Your task to perform on an android device: Go to notification settings Image 0: 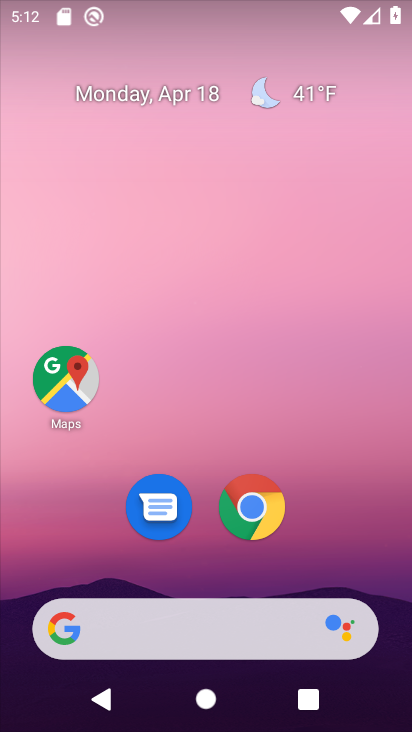
Step 0: drag from (326, 591) to (288, 69)
Your task to perform on an android device: Go to notification settings Image 1: 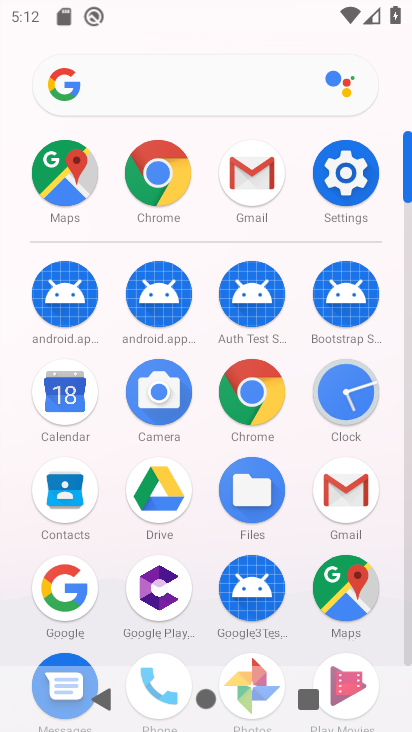
Step 1: click (338, 170)
Your task to perform on an android device: Go to notification settings Image 2: 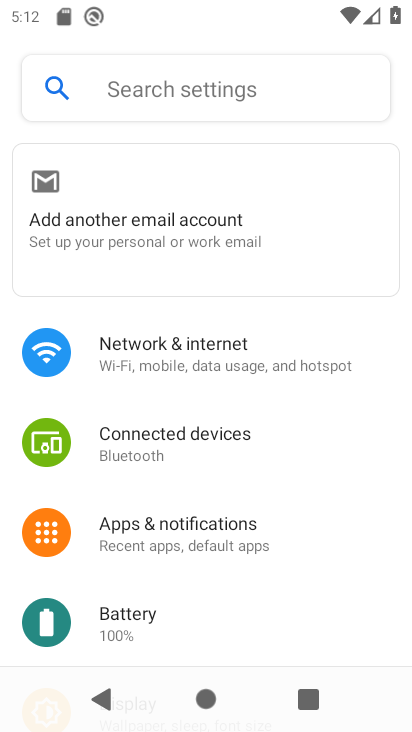
Step 2: click (185, 525)
Your task to perform on an android device: Go to notification settings Image 3: 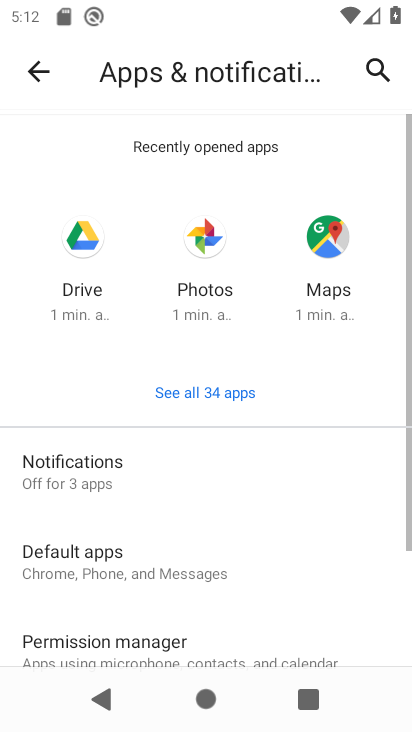
Step 3: drag from (300, 647) to (309, 146)
Your task to perform on an android device: Go to notification settings Image 4: 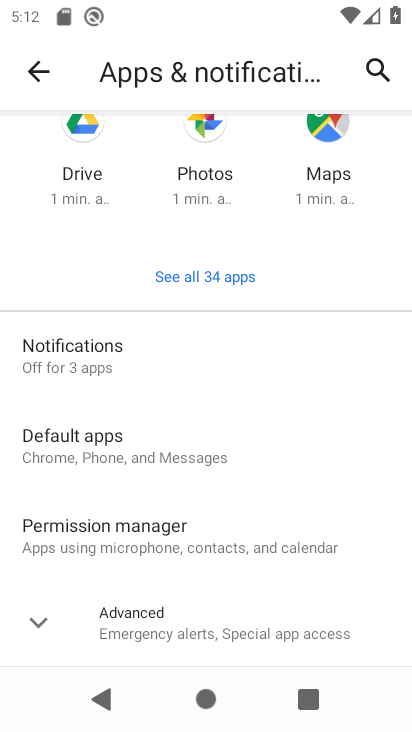
Step 4: click (125, 371)
Your task to perform on an android device: Go to notification settings Image 5: 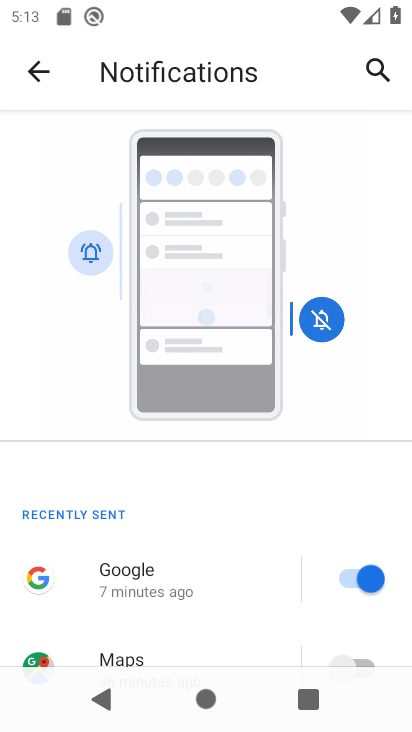
Step 5: task complete